Your task to perform on an android device: open app "HBO Max: Stream TV & Movies" (install if not already installed) Image 0: 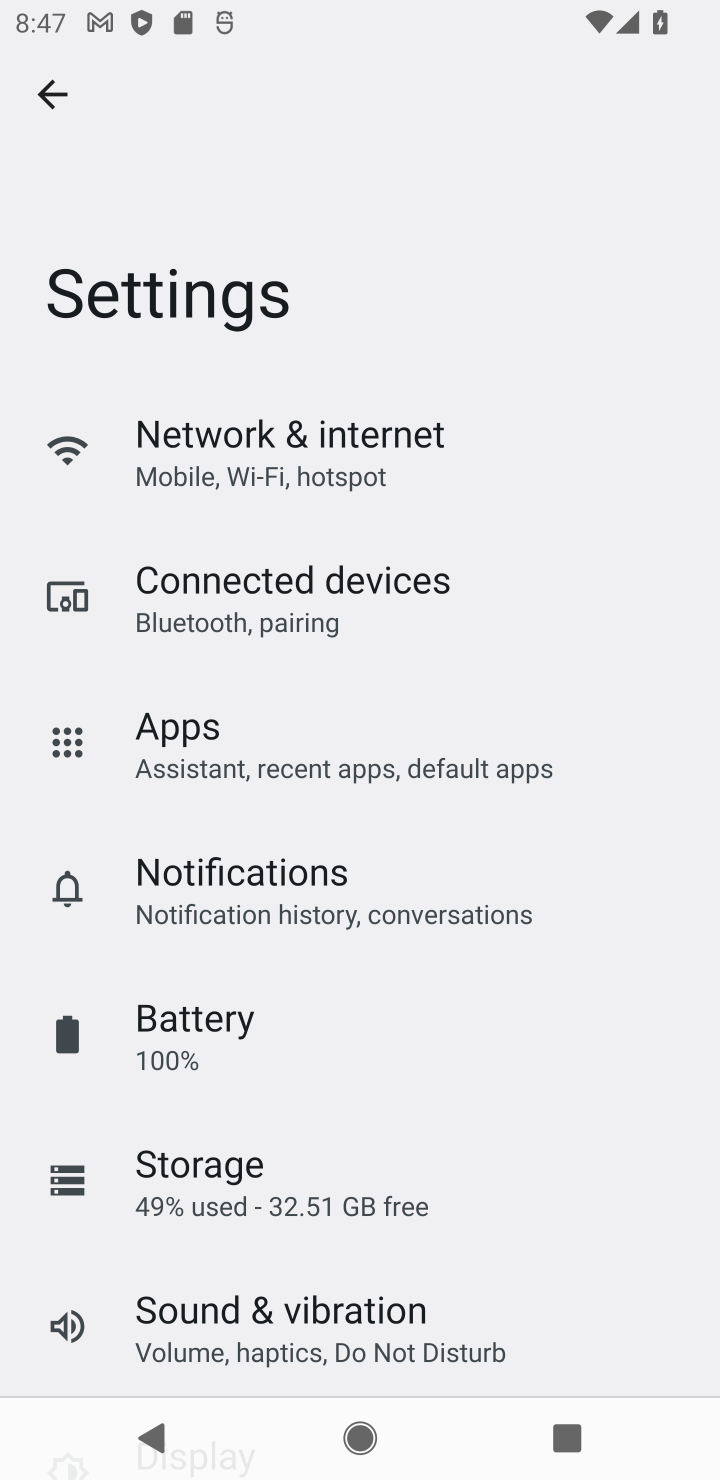
Step 0: press home button
Your task to perform on an android device: open app "HBO Max: Stream TV & Movies" (install if not already installed) Image 1: 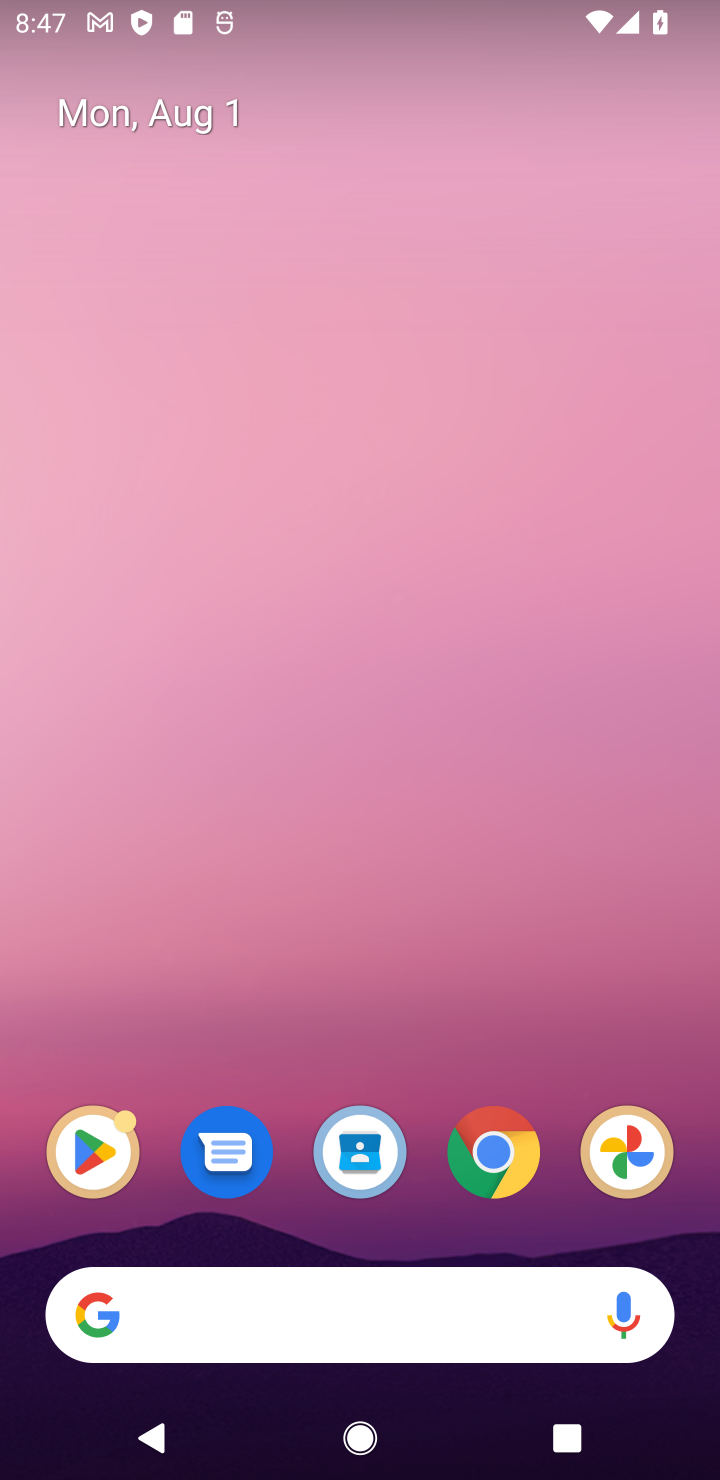
Step 1: drag from (391, 1243) to (340, 294)
Your task to perform on an android device: open app "HBO Max: Stream TV & Movies" (install if not already installed) Image 2: 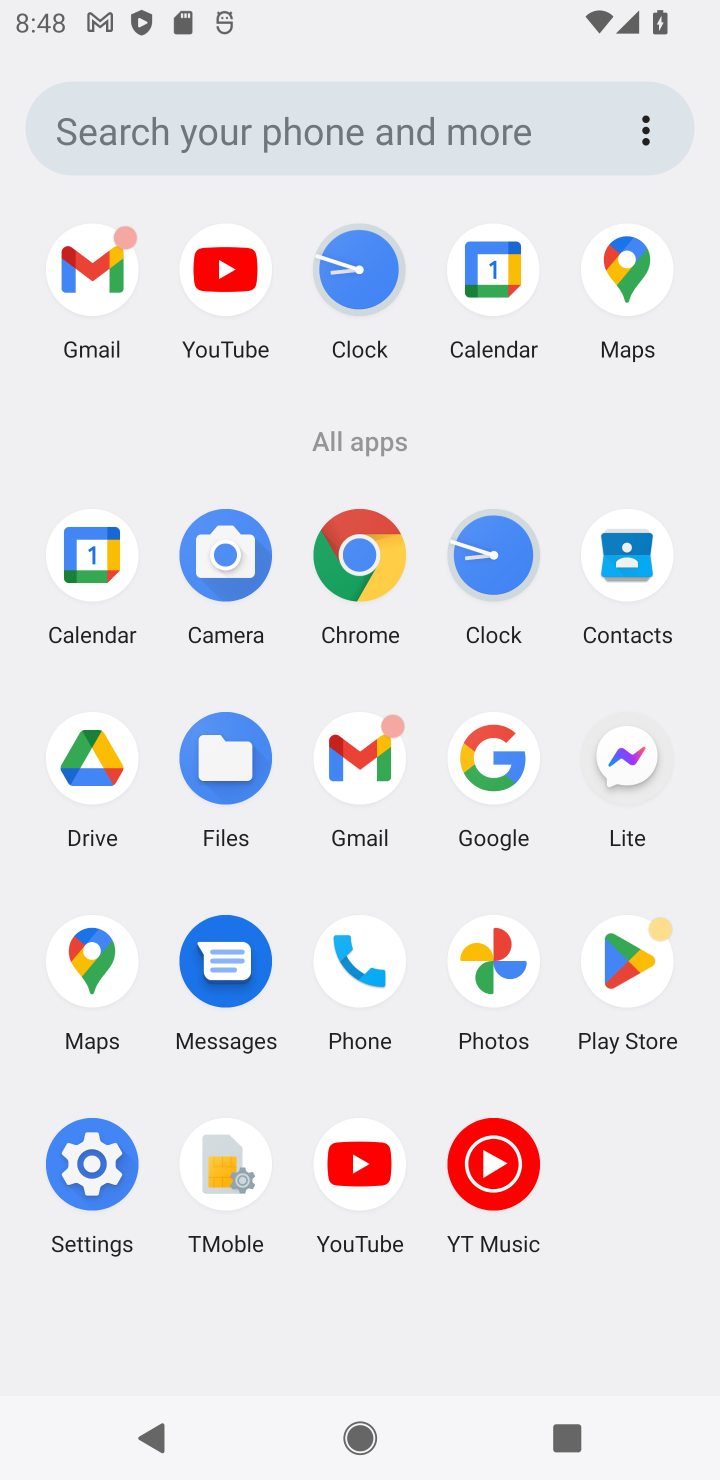
Step 2: click (631, 978)
Your task to perform on an android device: open app "HBO Max: Stream TV & Movies" (install if not already installed) Image 3: 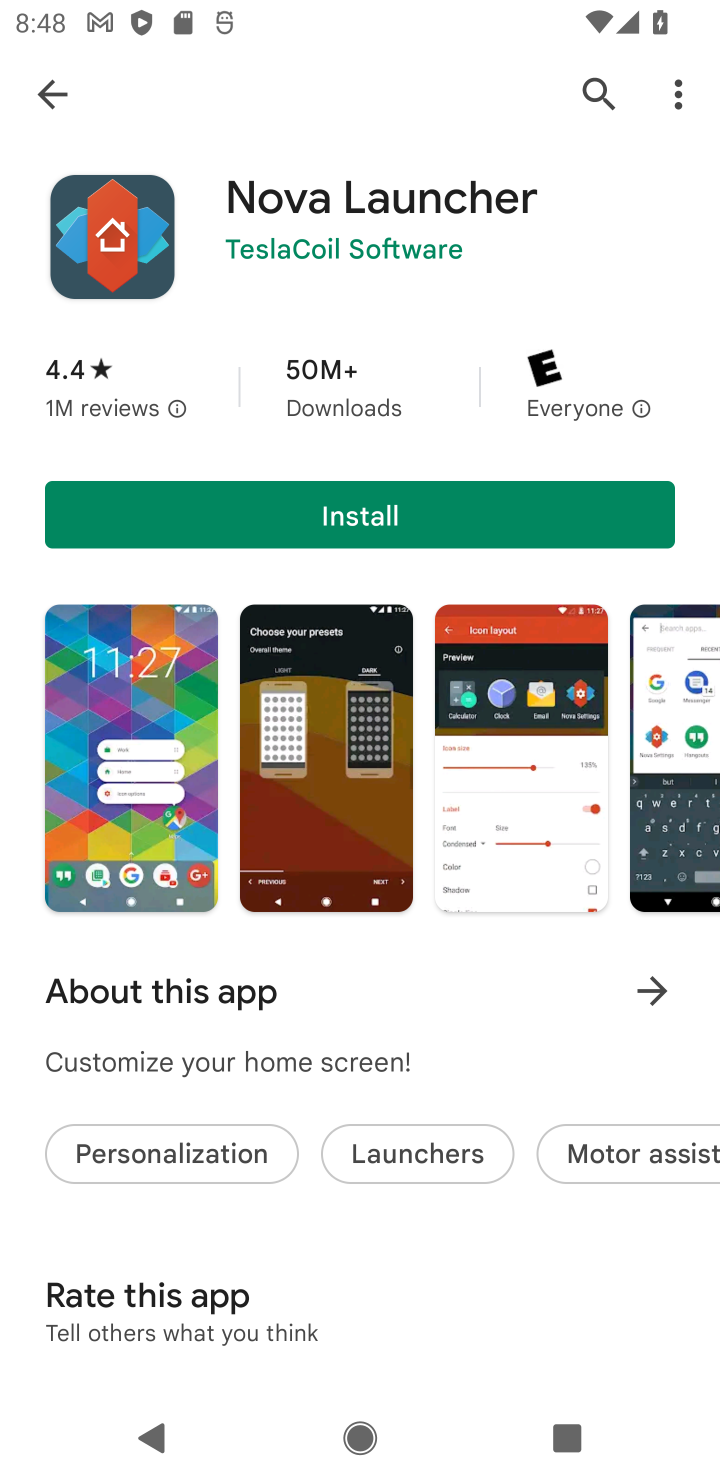
Step 3: click (113, 91)
Your task to perform on an android device: open app "HBO Max: Stream TV & Movies" (install if not already installed) Image 4: 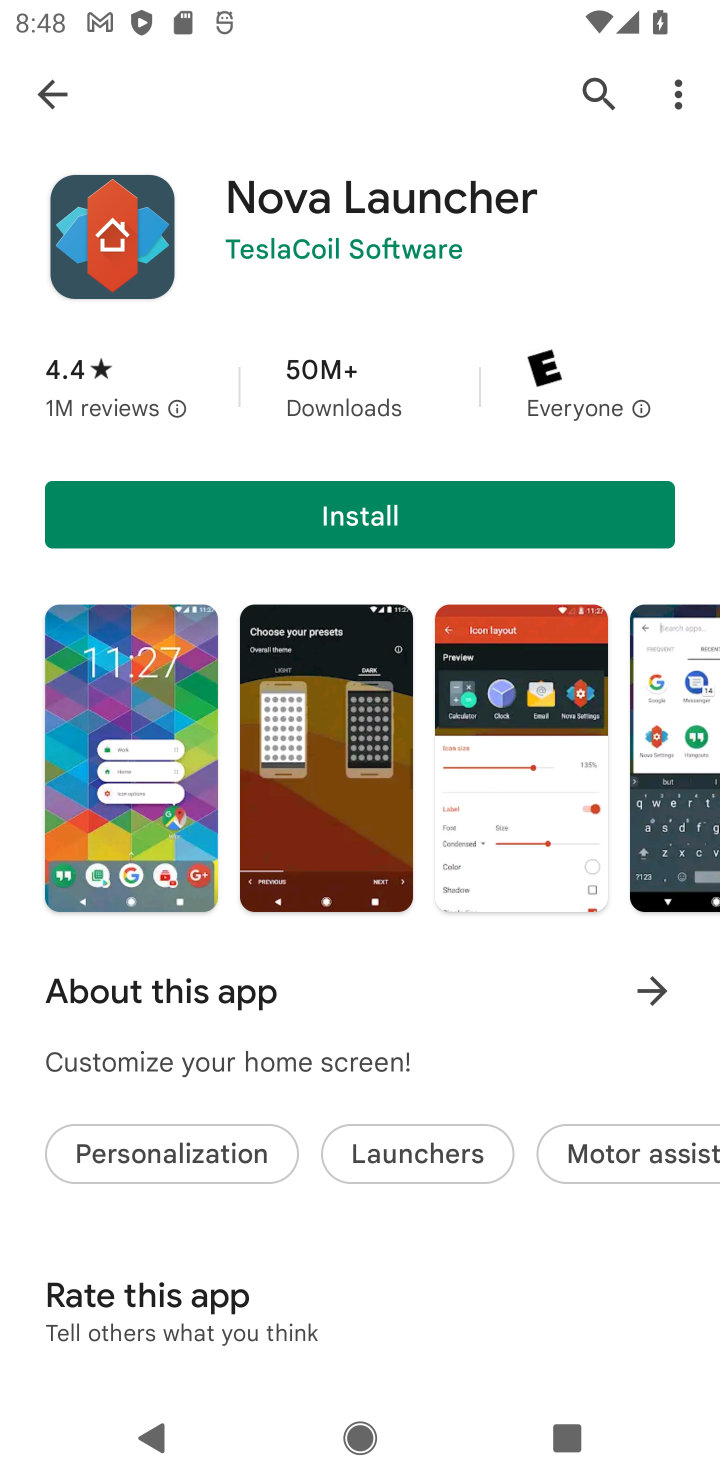
Step 4: click (33, 106)
Your task to perform on an android device: open app "HBO Max: Stream TV & Movies" (install if not already installed) Image 5: 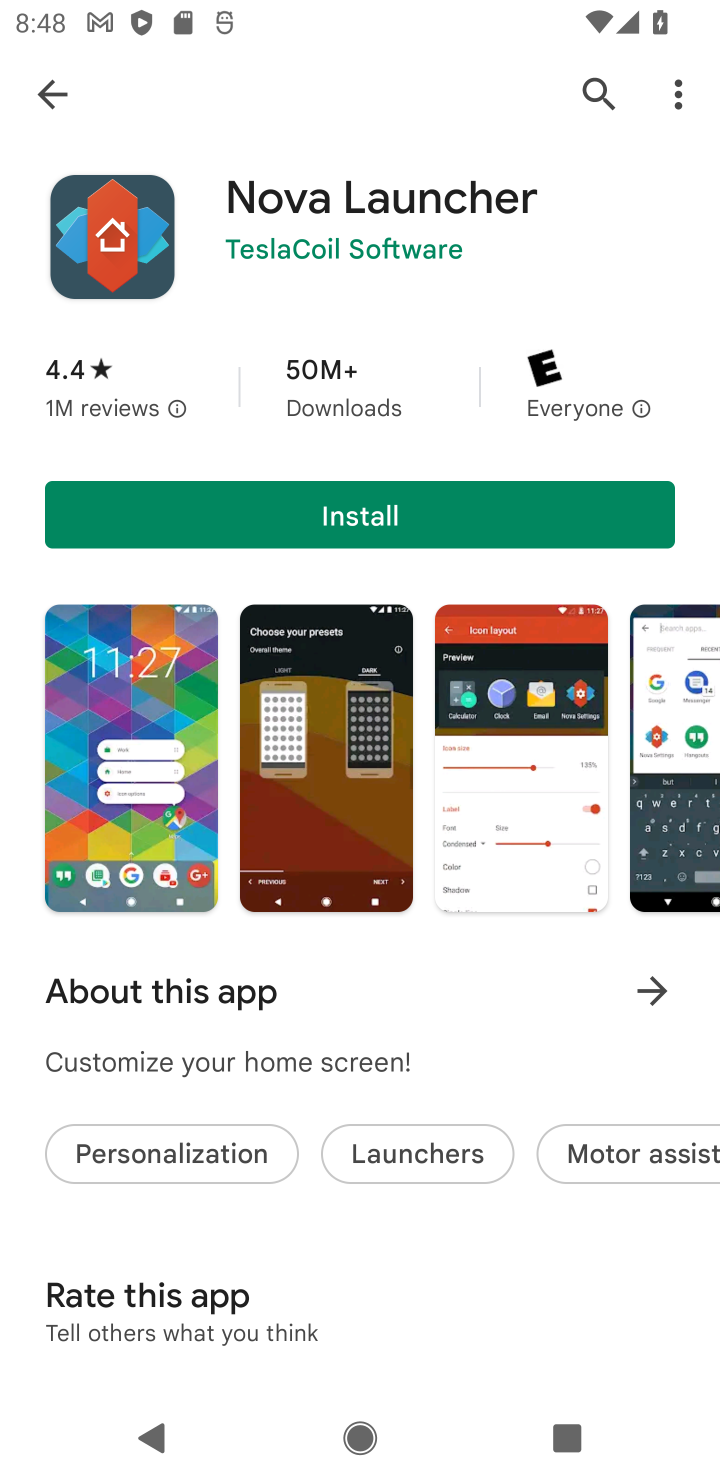
Step 5: click (58, 91)
Your task to perform on an android device: open app "HBO Max: Stream TV & Movies" (install if not already installed) Image 6: 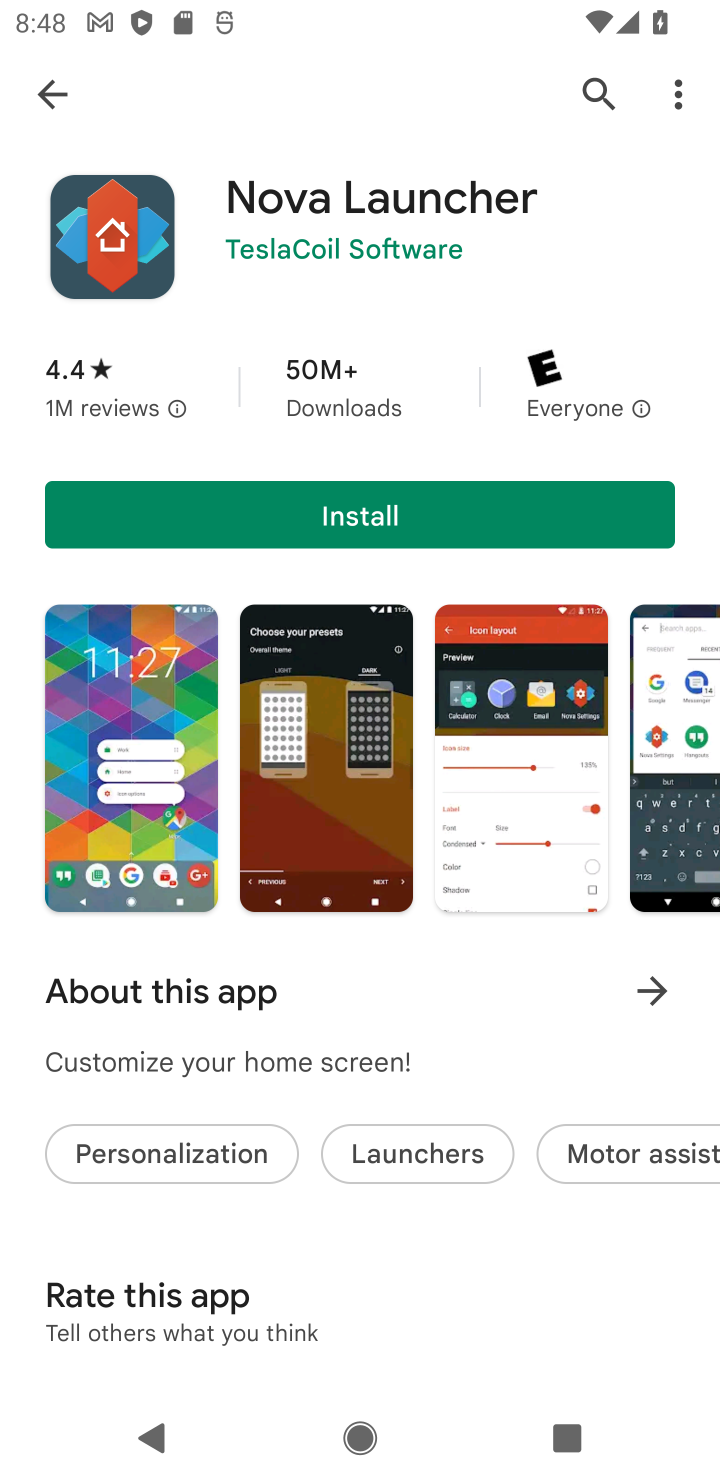
Step 6: click (47, 94)
Your task to perform on an android device: open app "HBO Max: Stream TV & Movies" (install if not already installed) Image 7: 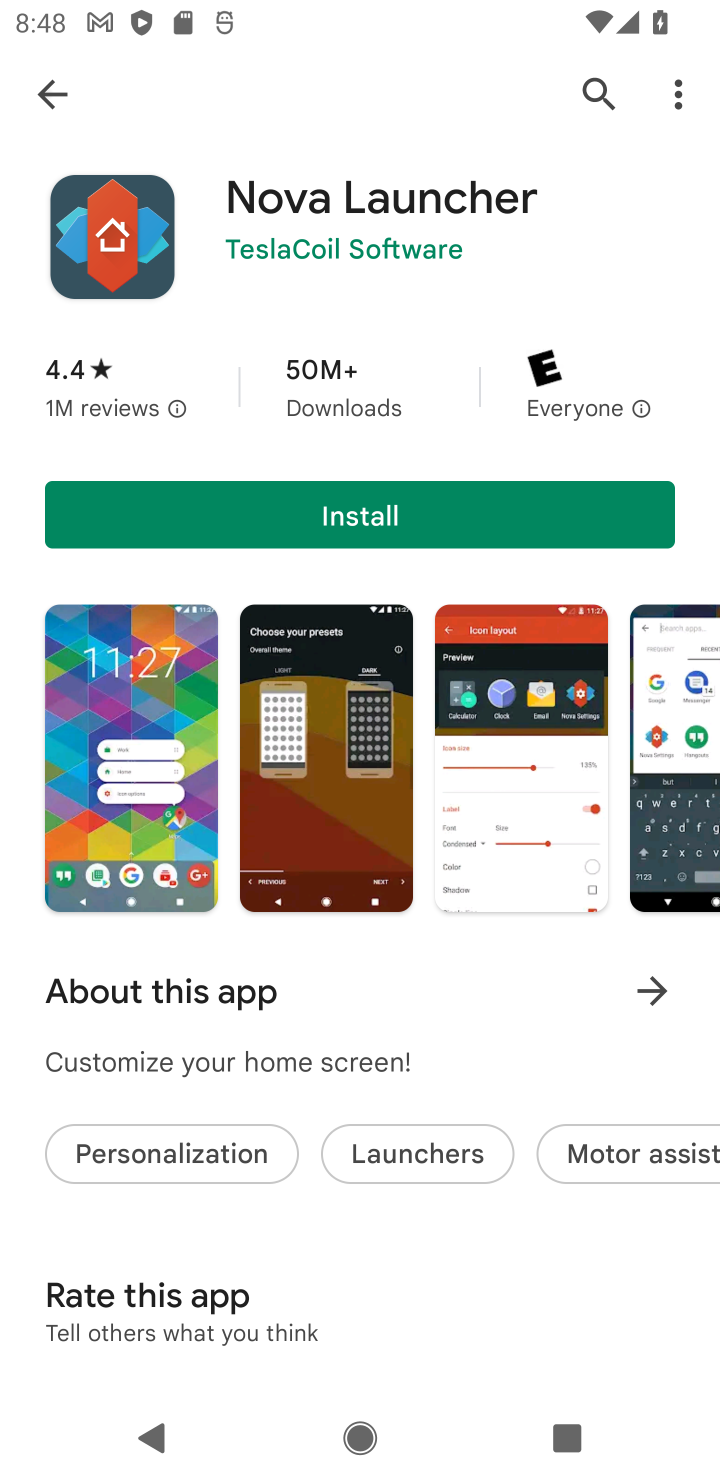
Step 7: click (51, 101)
Your task to perform on an android device: open app "HBO Max: Stream TV & Movies" (install if not already installed) Image 8: 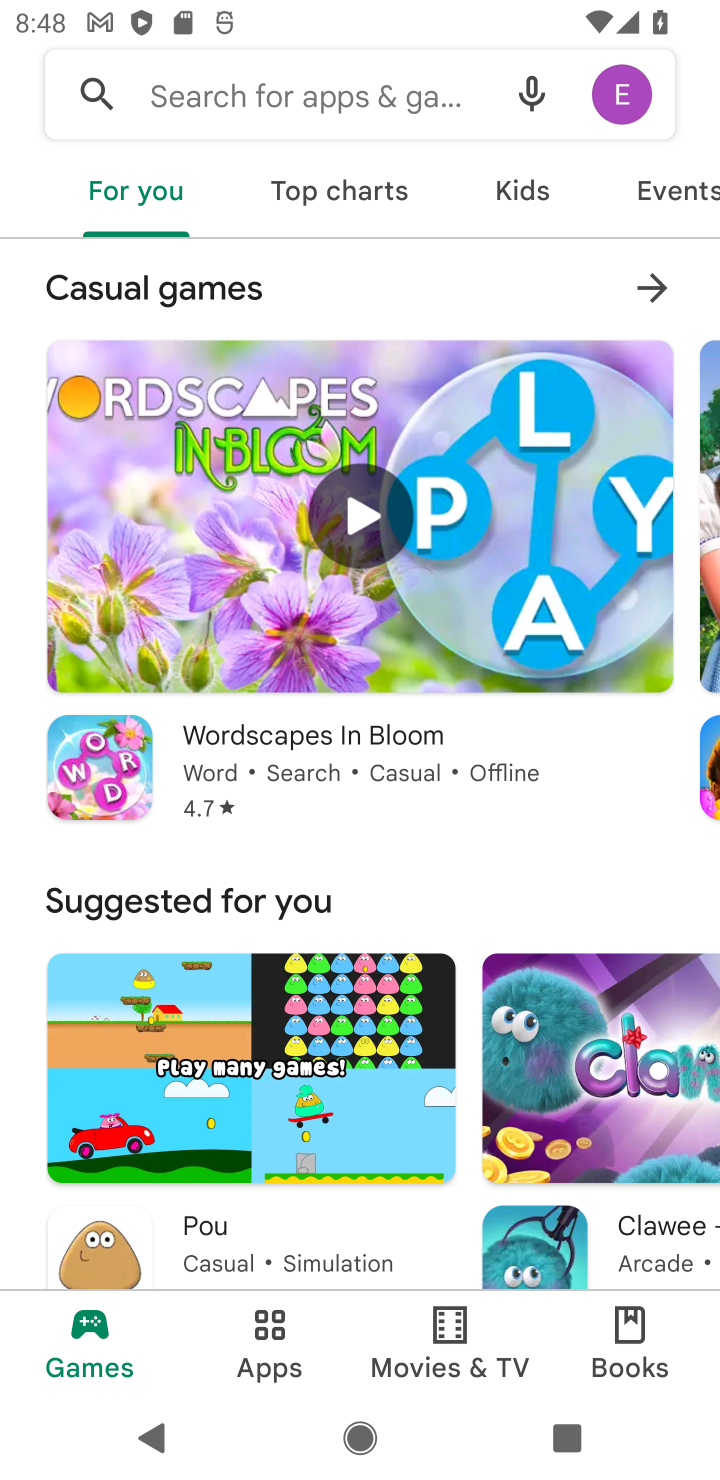
Step 8: click (215, 92)
Your task to perform on an android device: open app "HBO Max: Stream TV & Movies" (install if not already installed) Image 9: 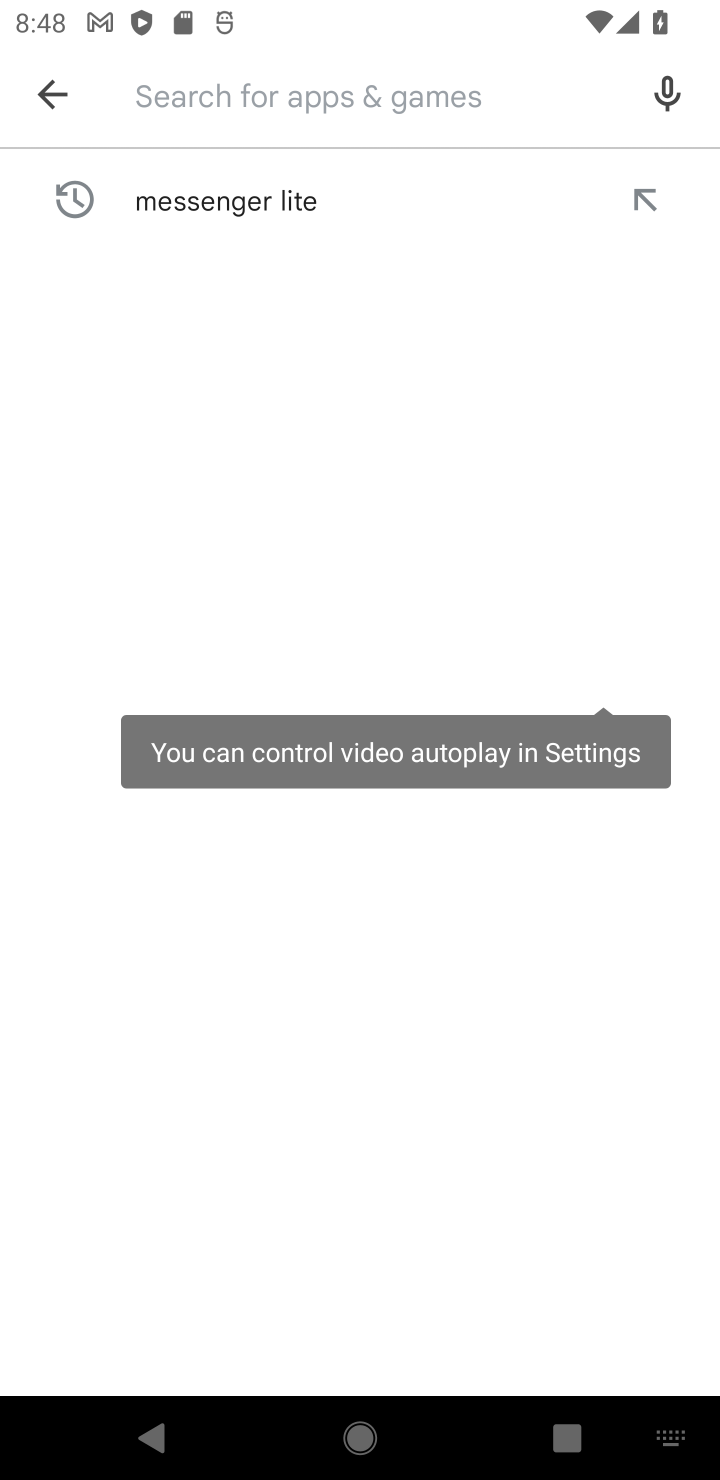
Step 9: type "HBO Max: Stream TV & Movies"
Your task to perform on an android device: open app "HBO Max: Stream TV & Movies" (install if not already installed) Image 10: 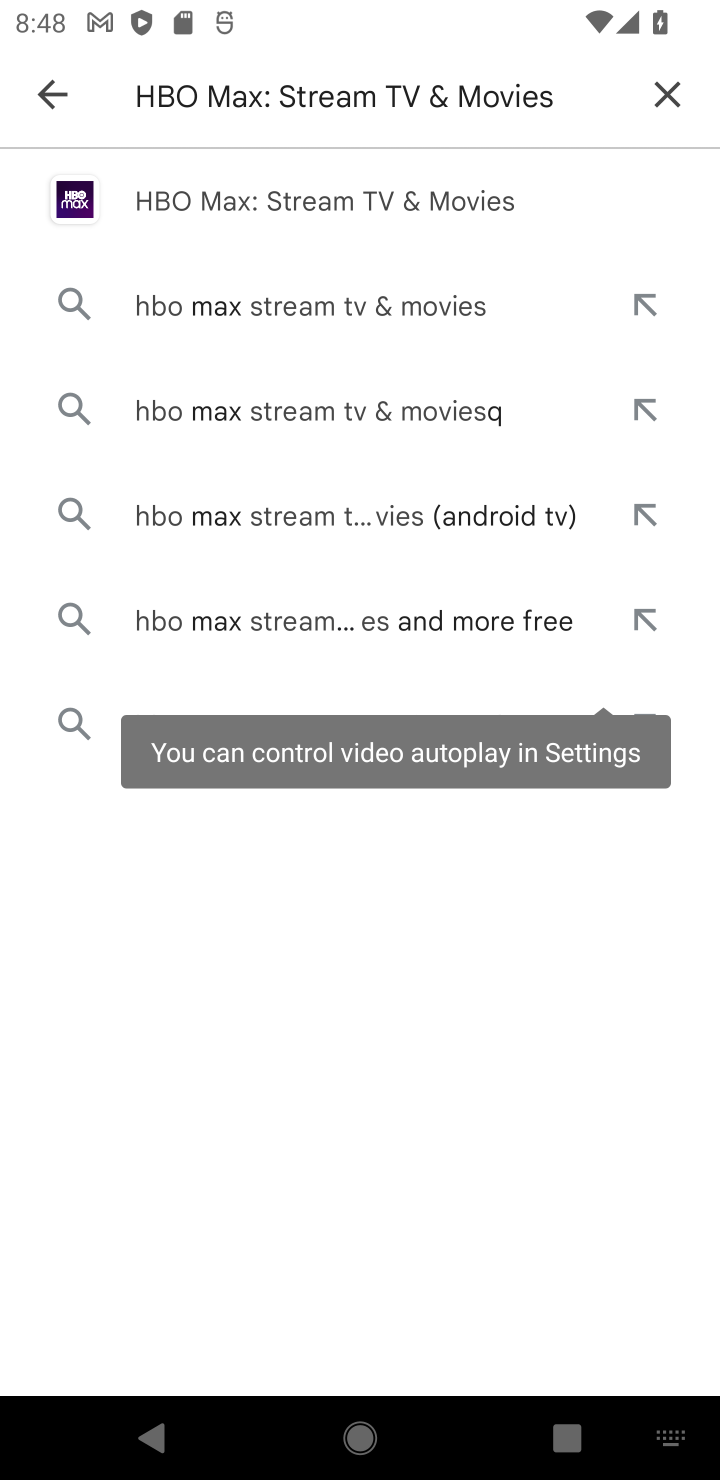
Step 10: click (119, 204)
Your task to perform on an android device: open app "HBO Max: Stream TV & Movies" (install if not already installed) Image 11: 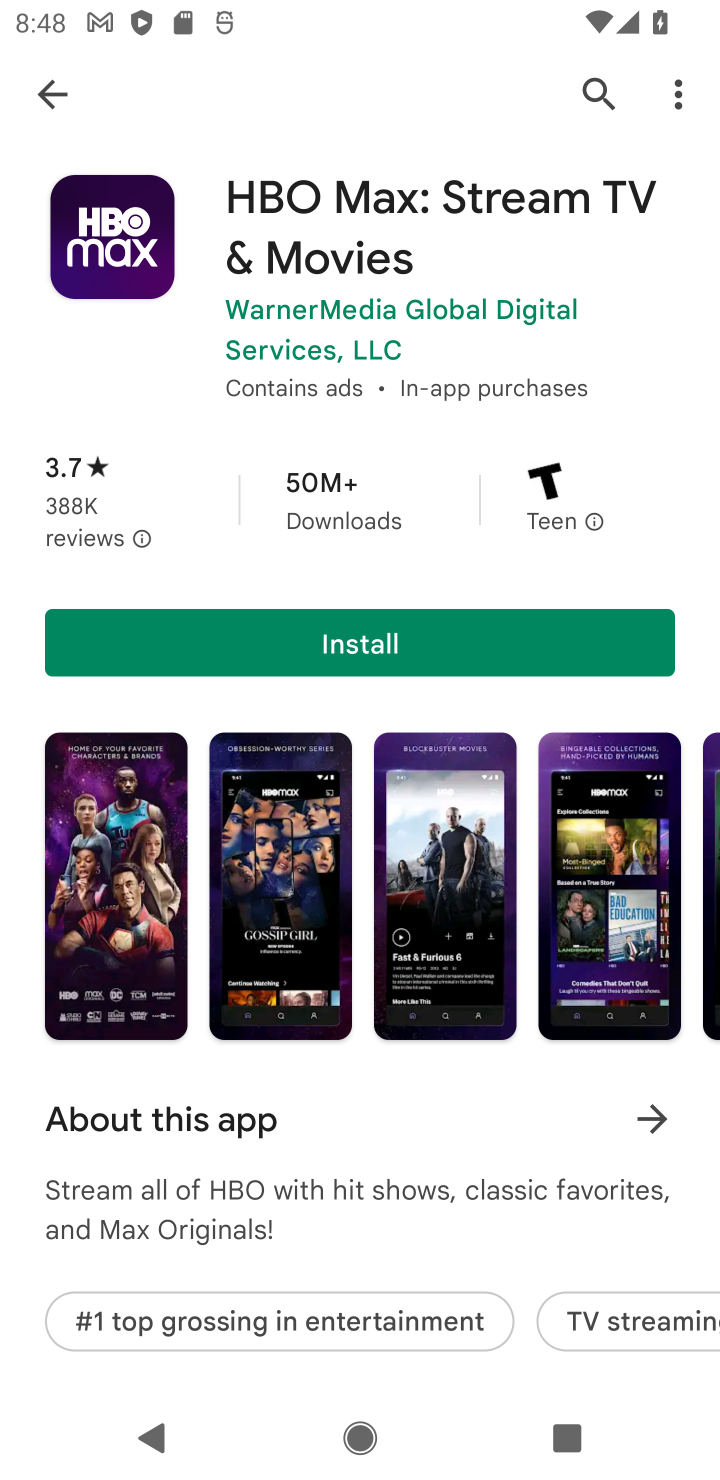
Step 11: click (339, 631)
Your task to perform on an android device: open app "HBO Max: Stream TV & Movies" (install if not already installed) Image 12: 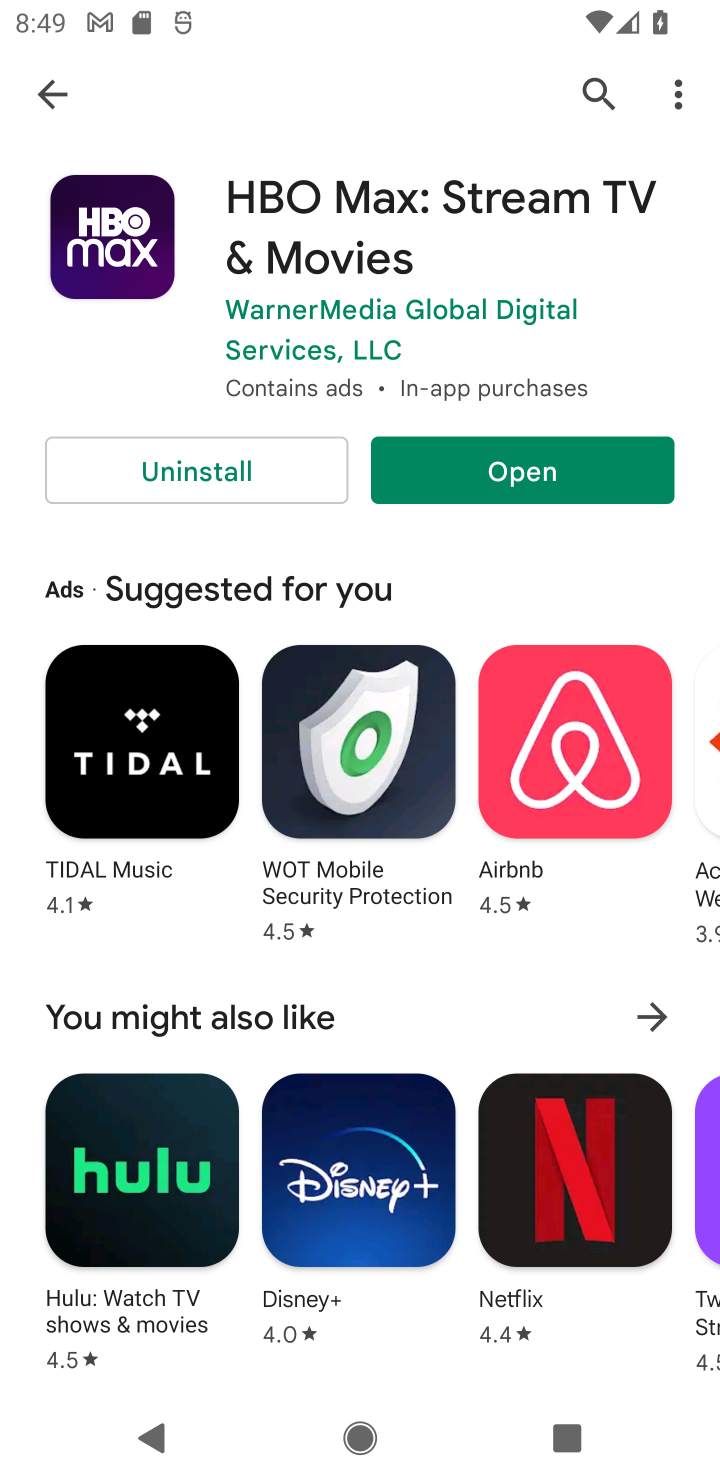
Step 12: click (560, 481)
Your task to perform on an android device: open app "HBO Max: Stream TV & Movies" (install if not already installed) Image 13: 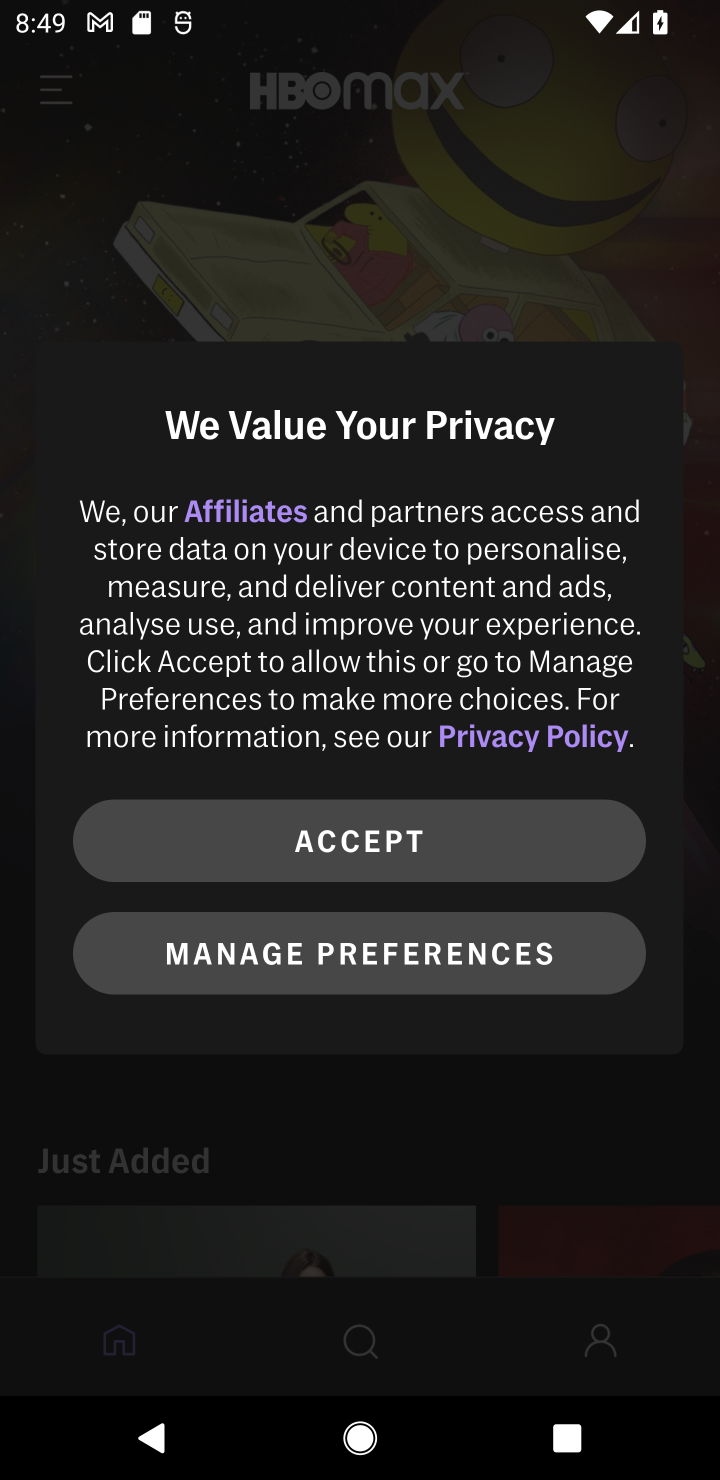
Step 13: click (335, 862)
Your task to perform on an android device: open app "HBO Max: Stream TV & Movies" (install if not already installed) Image 14: 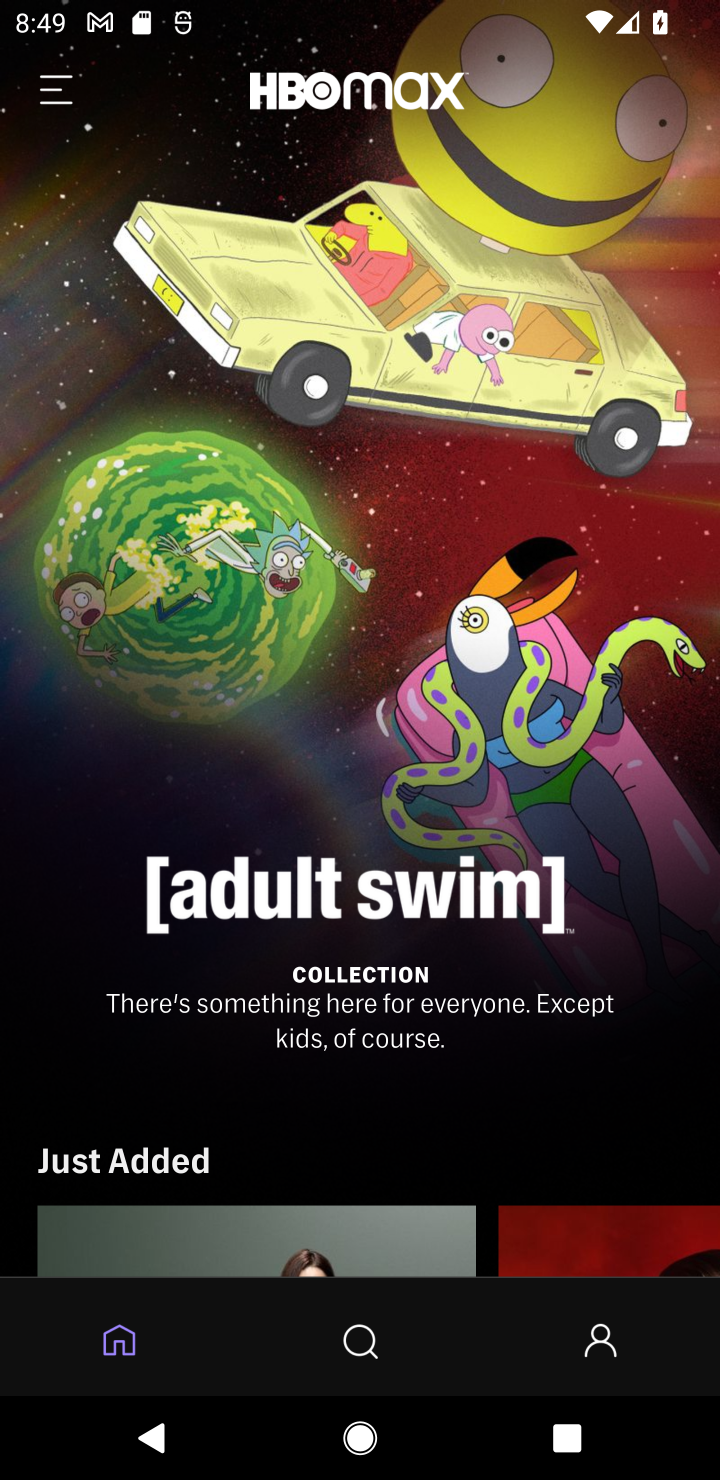
Step 14: task complete